Your task to perform on an android device: Search for the best selling video games at Target Image 0: 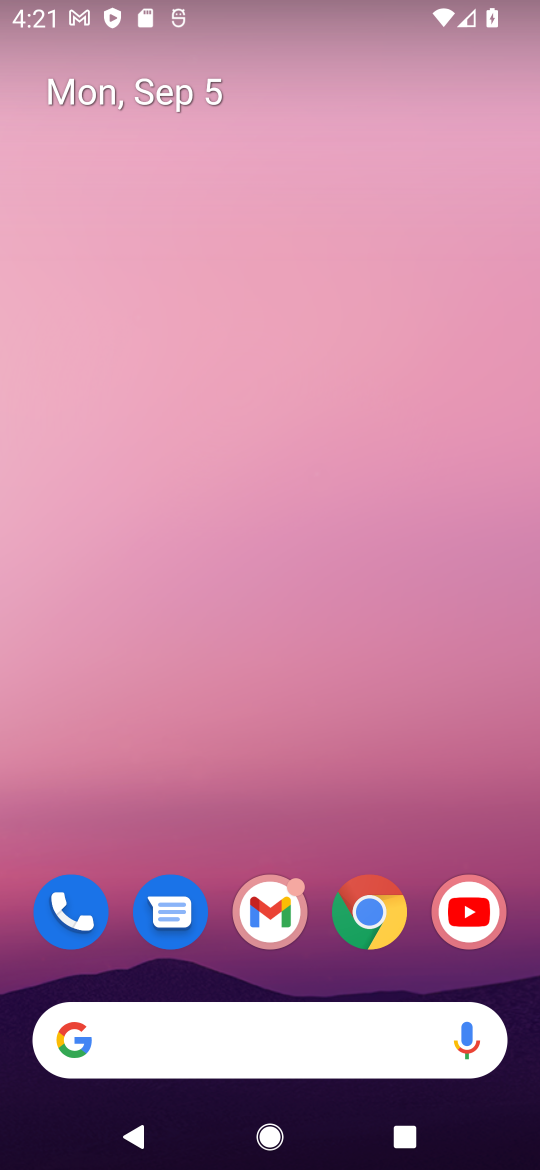
Step 0: click (363, 923)
Your task to perform on an android device: Search for the best selling video games at Target Image 1: 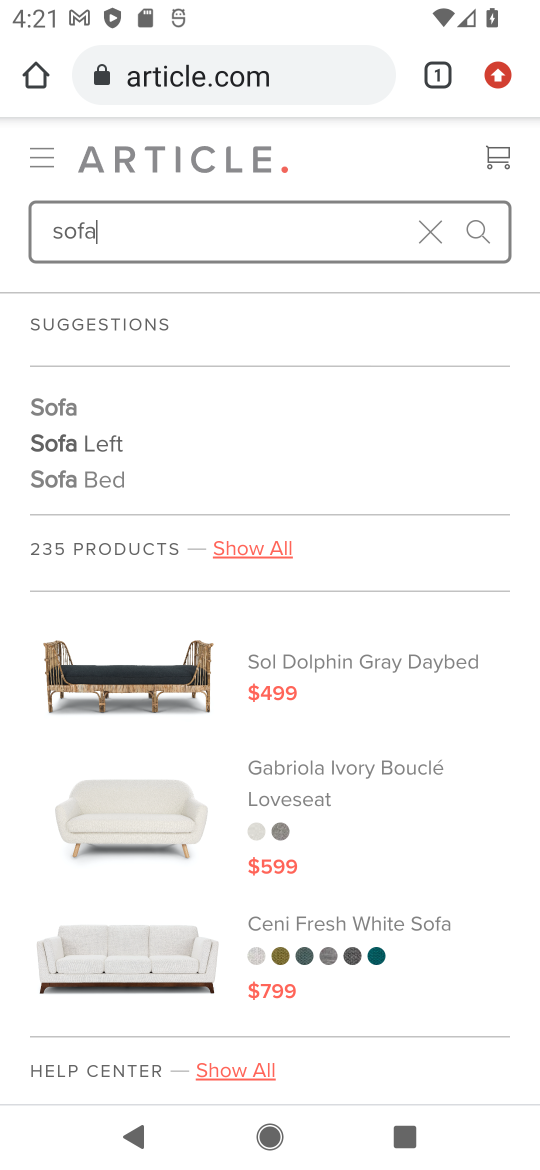
Step 1: click (300, 65)
Your task to perform on an android device: Search for the best selling video games at Target Image 2: 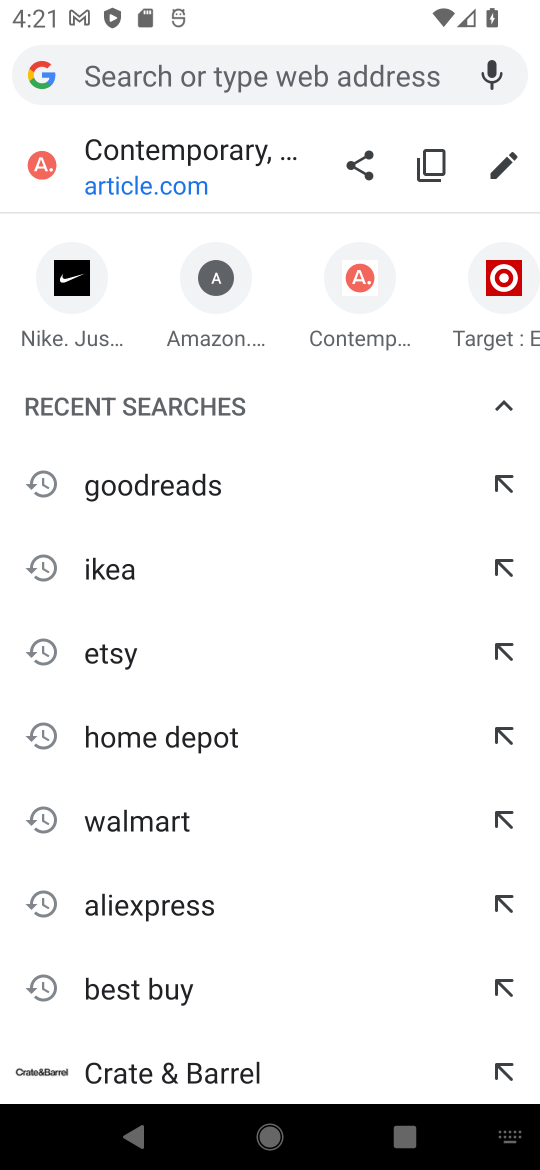
Step 2: type "target"
Your task to perform on an android device: Search for the best selling video games at Target Image 3: 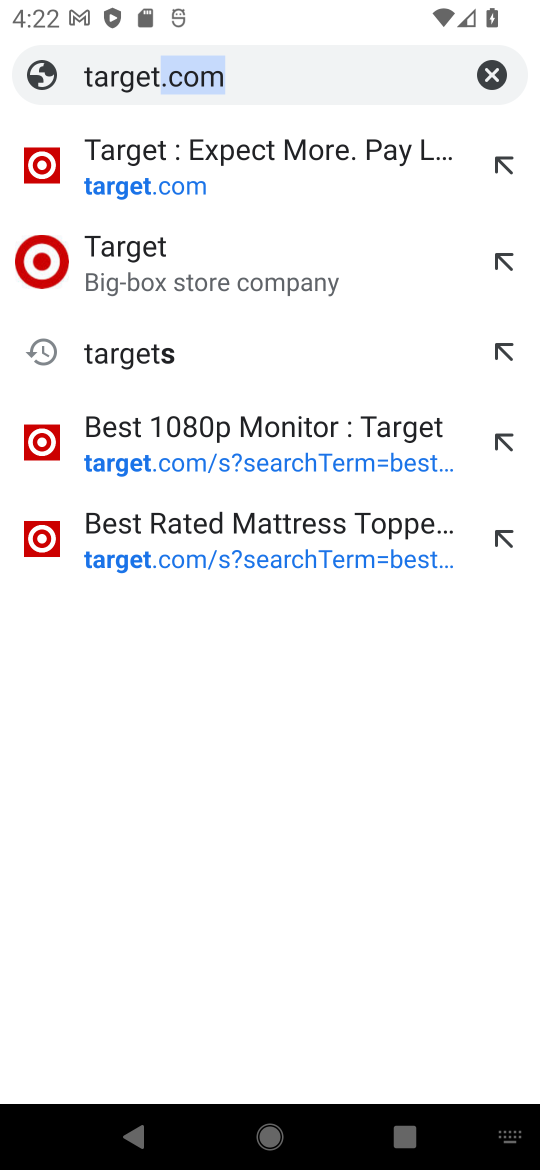
Step 3: press enter
Your task to perform on an android device: Search for the best selling video games at Target Image 4: 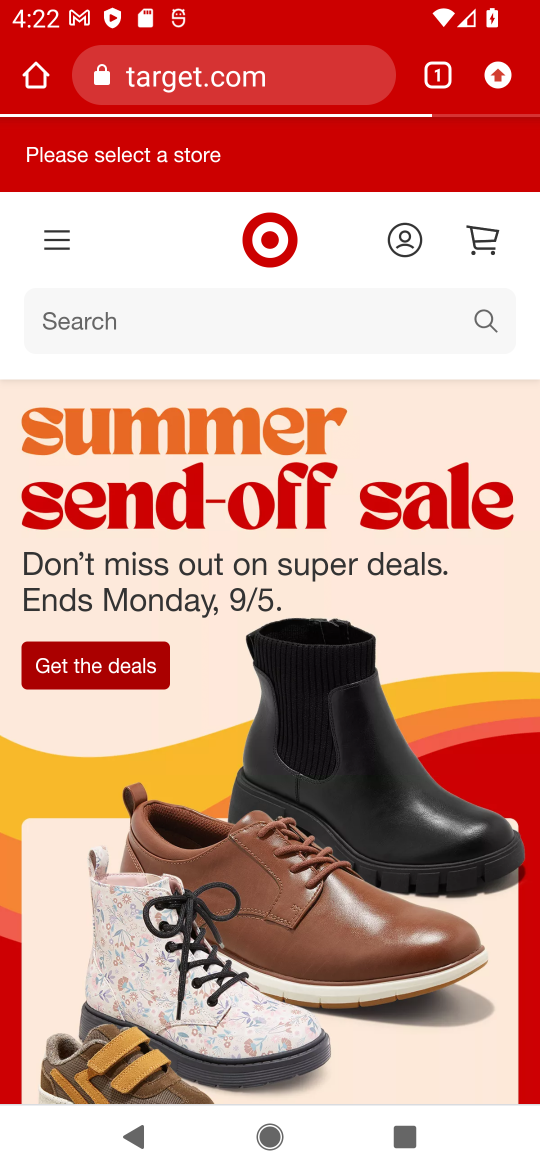
Step 4: click (302, 339)
Your task to perform on an android device: Search for the best selling video games at Target Image 5: 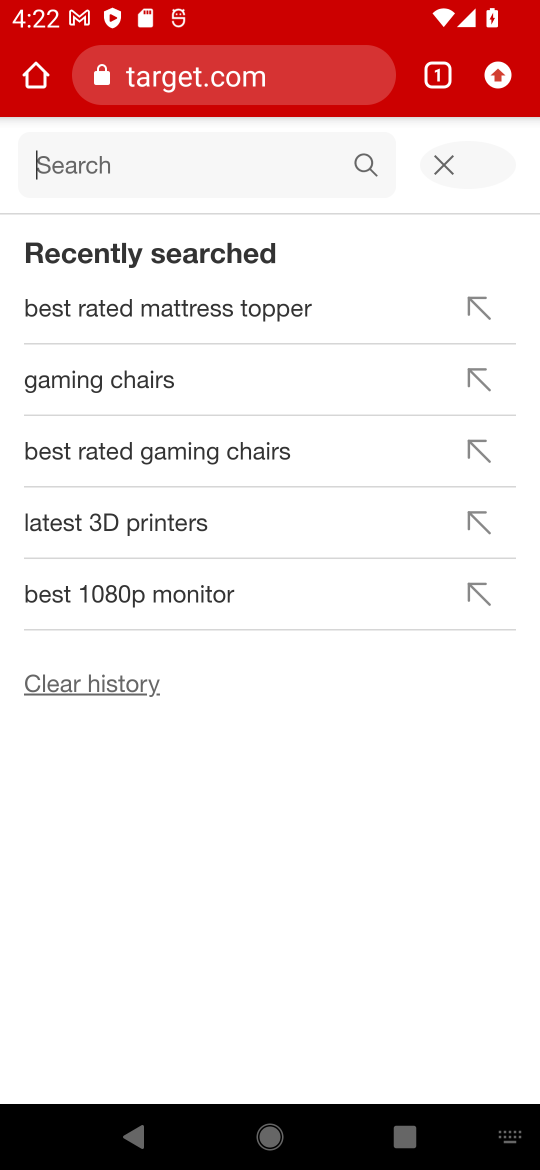
Step 5: type "best selling video games"
Your task to perform on an android device: Search for the best selling video games at Target Image 6: 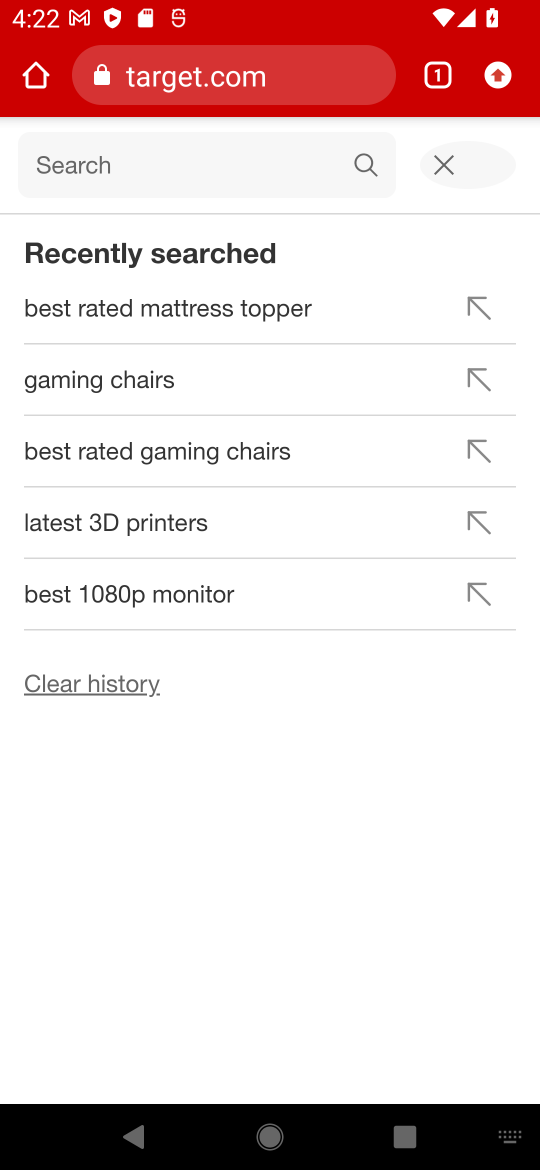
Step 6: type ""
Your task to perform on an android device: Search for the best selling video games at Target Image 7: 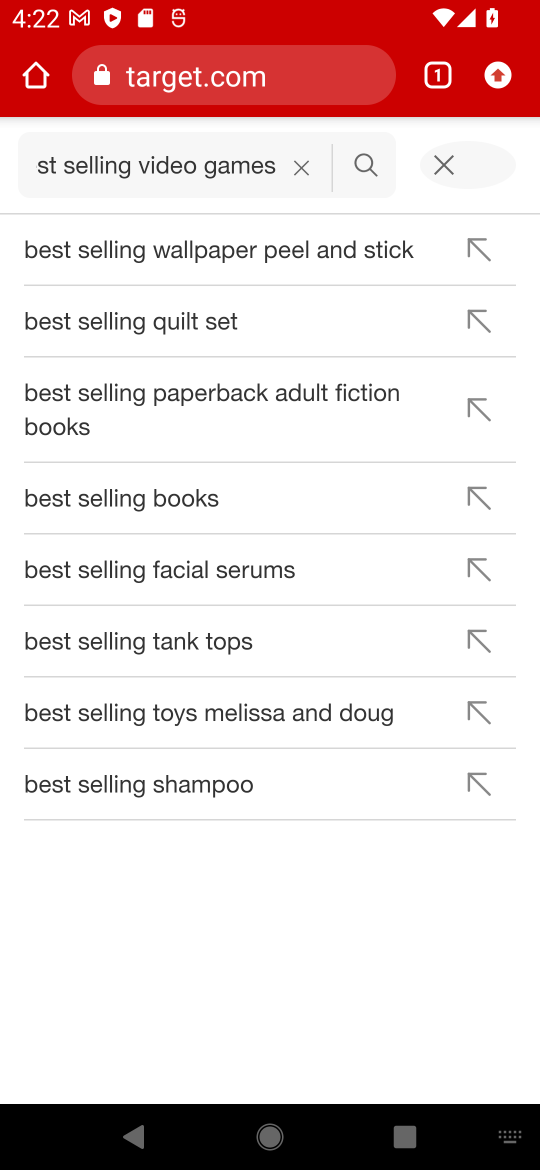
Step 7: press enter
Your task to perform on an android device: Search for the best selling video games at Target Image 8: 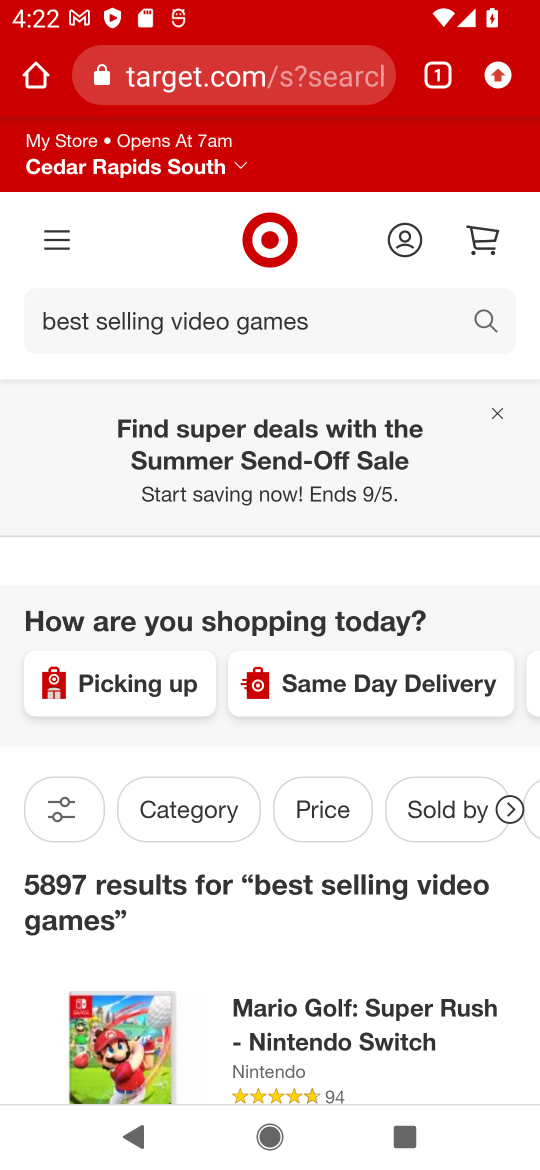
Step 8: click (62, 816)
Your task to perform on an android device: Search for the best selling video games at Target Image 9: 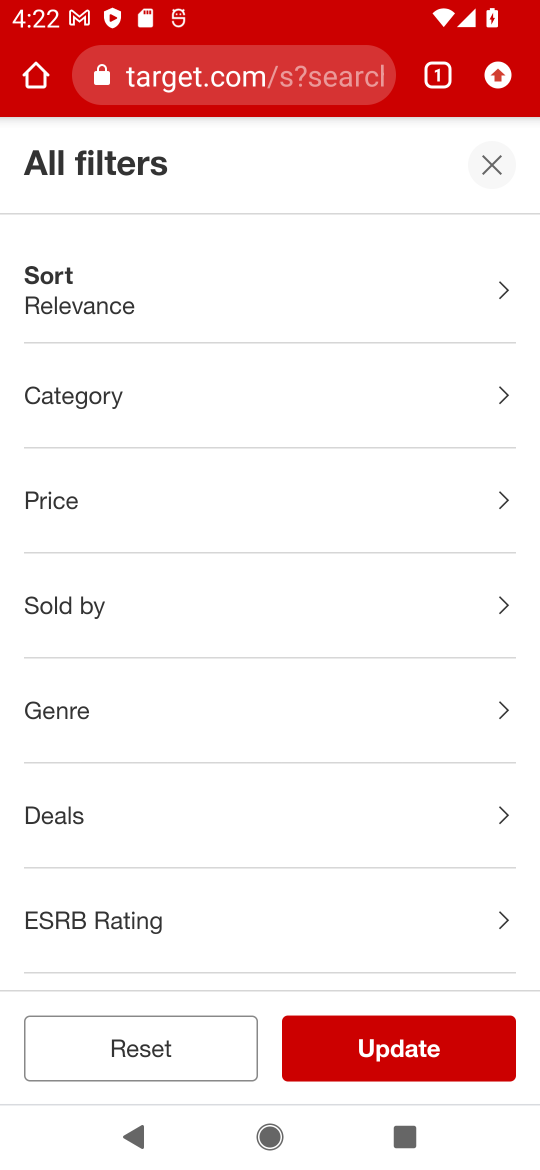
Step 9: click (238, 301)
Your task to perform on an android device: Search for the best selling video games at Target Image 10: 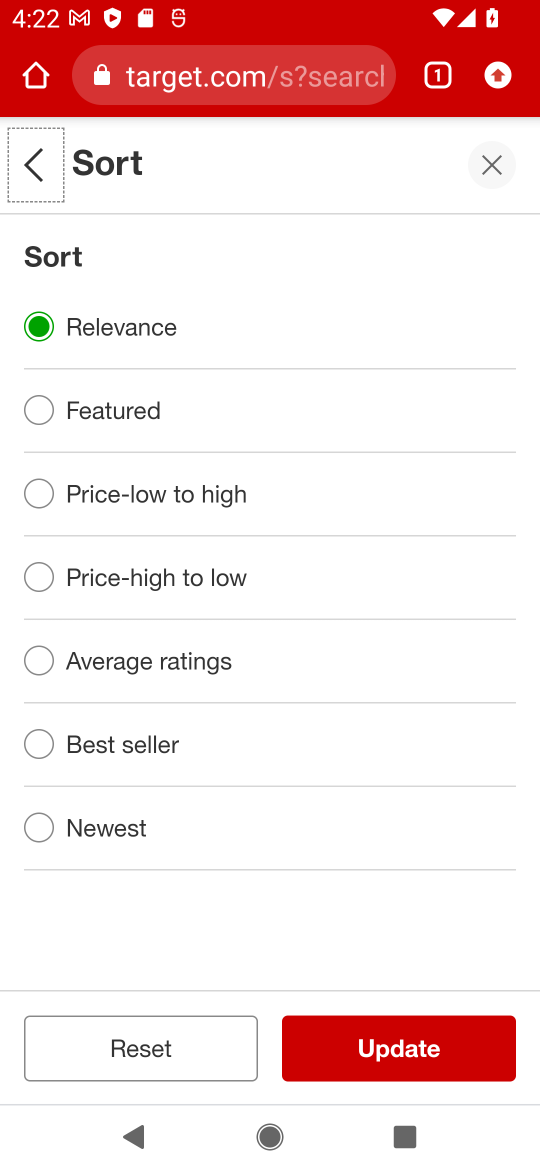
Step 10: click (92, 746)
Your task to perform on an android device: Search for the best selling video games at Target Image 11: 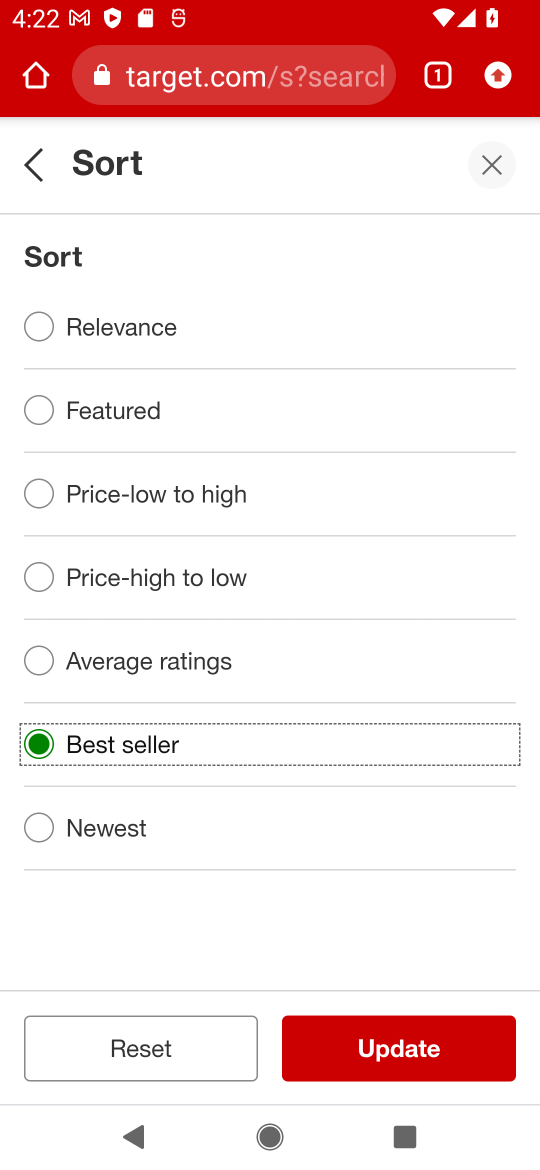
Step 11: click (414, 1043)
Your task to perform on an android device: Search for the best selling video games at Target Image 12: 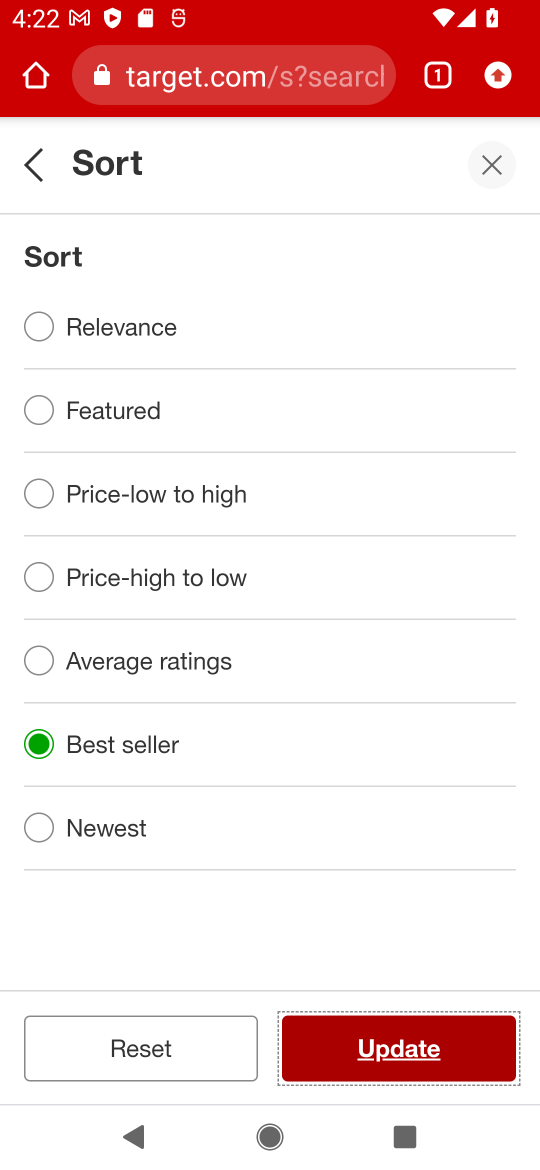
Step 12: click (430, 1054)
Your task to perform on an android device: Search for the best selling video games at Target Image 13: 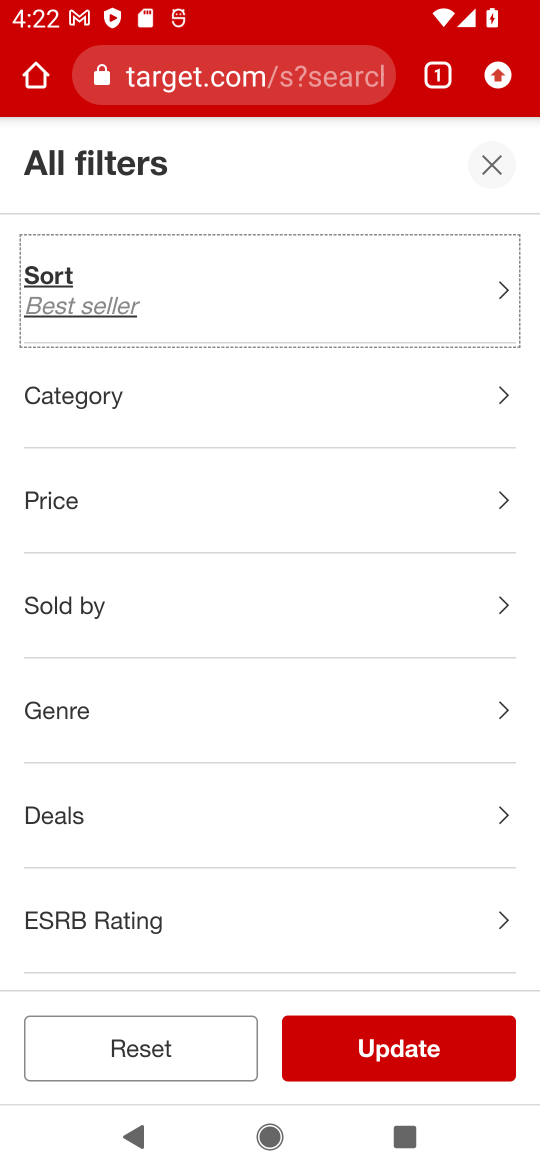
Step 13: click (430, 1054)
Your task to perform on an android device: Search for the best selling video games at Target Image 14: 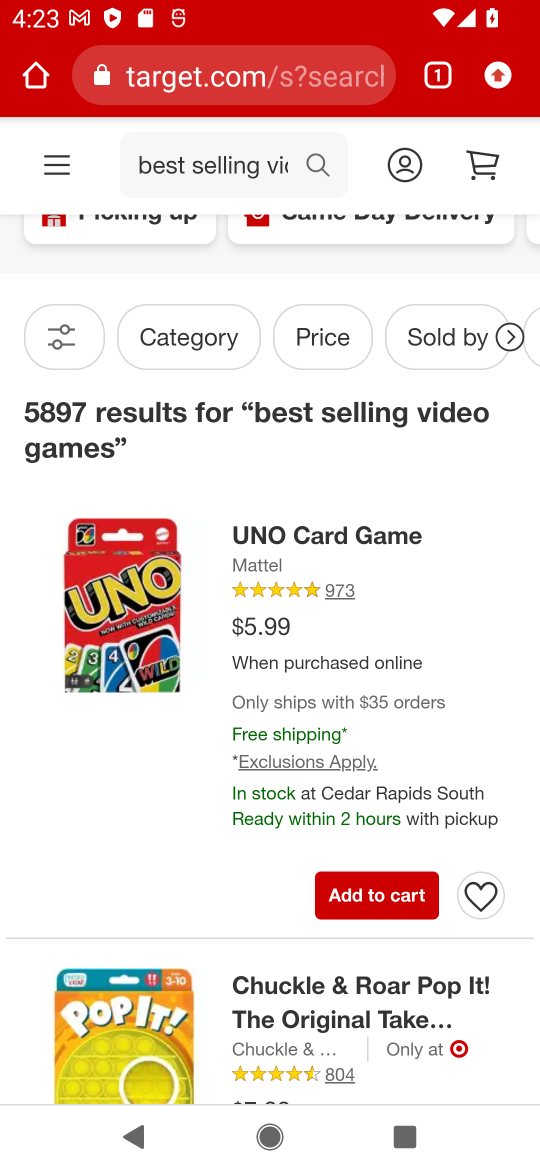
Step 14: drag from (422, 949) to (435, 477)
Your task to perform on an android device: Search for the best selling video games at Target Image 15: 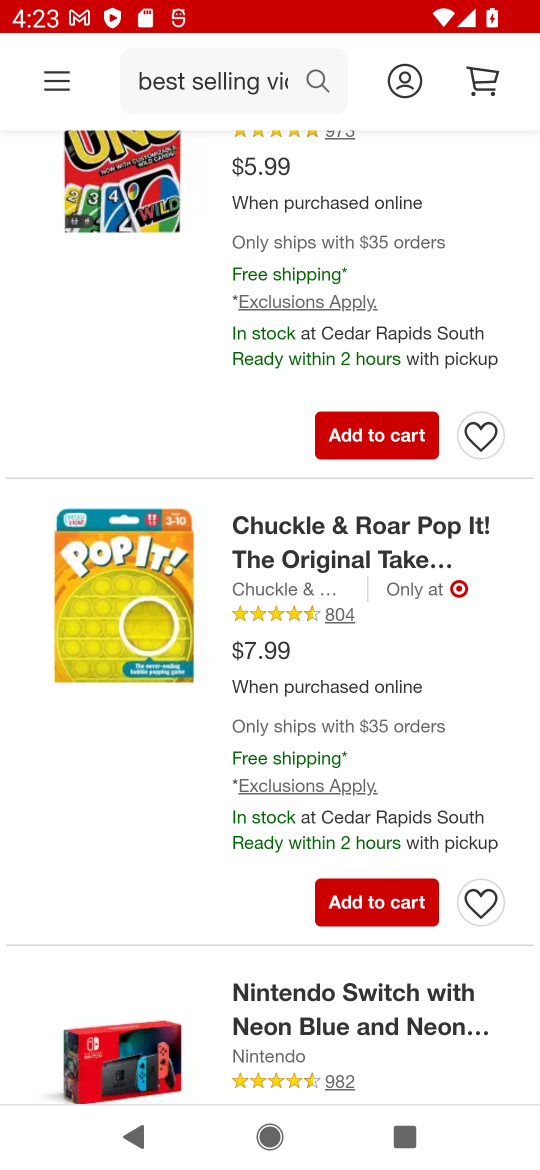
Step 15: drag from (437, 850) to (443, 612)
Your task to perform on an android device: Search for the best selling video games at Target Image 16: 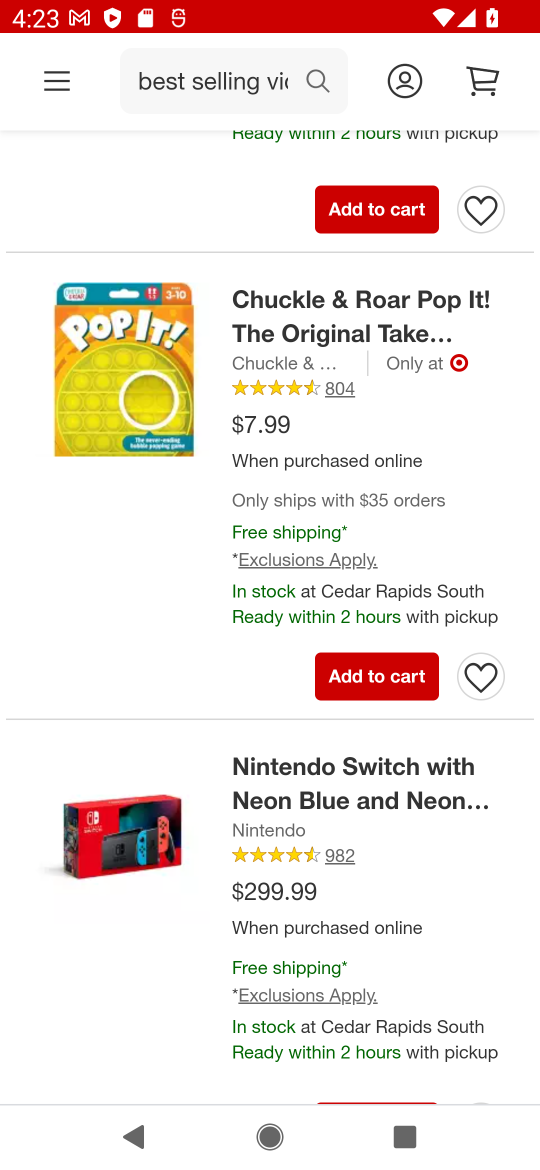
Step 16: drag from (465, 794) to (478, 418)
Your task to perform on an android device: Search for the best selling video games at Target Image 17: 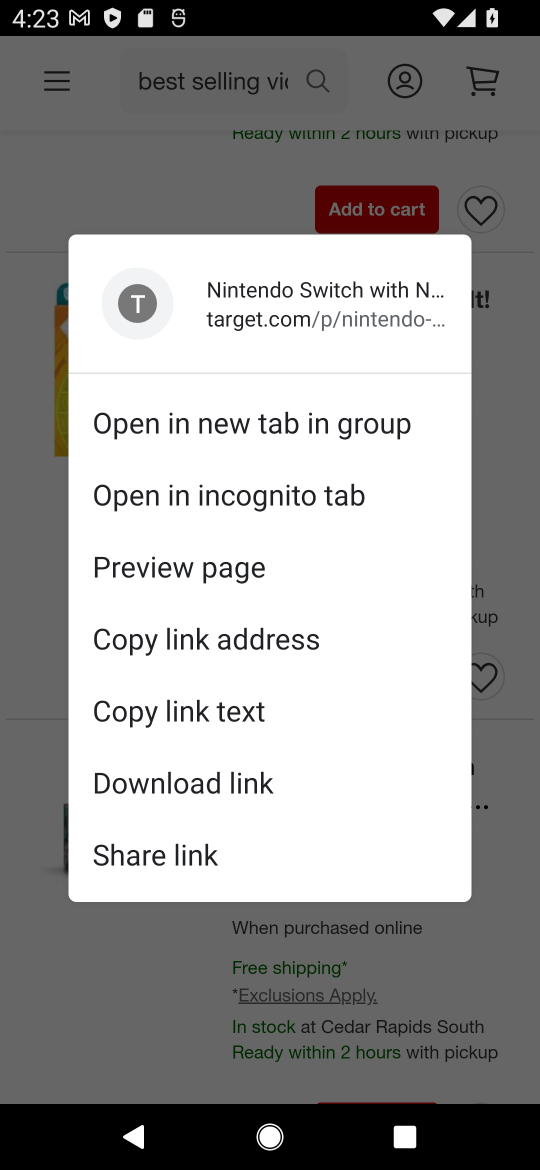
Step 17: click (504, 630)
Your task to perform on an android device: Search for the best selling video games at Target Image 18: 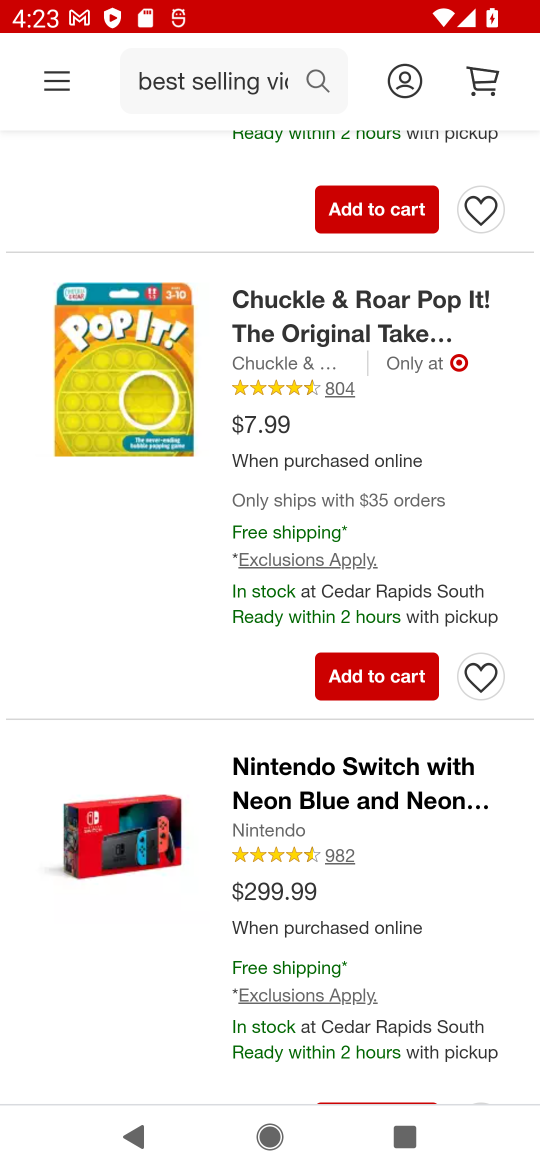
Step 18: task complete